Your task to perform on an android device: Search for pizza restaurants on Maps Image 0: 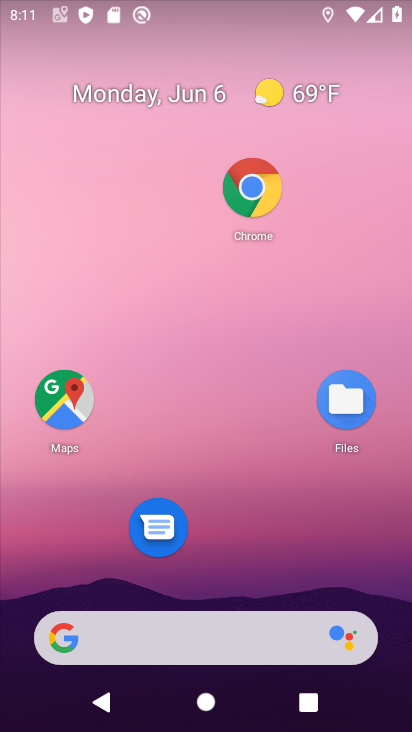
Step 0: drag from (230, 562) to (213, 96)
Your task to perform on an android device: Search for pizza restaurants on Maps Image 1: 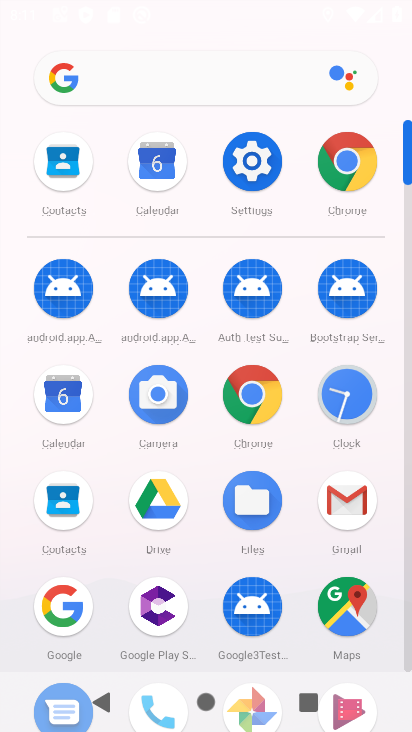
Step 1: drag from (226, 448) to (228, 141)
Your task to perform on an android device: Search for pizza restaurants on Maps Image 2: 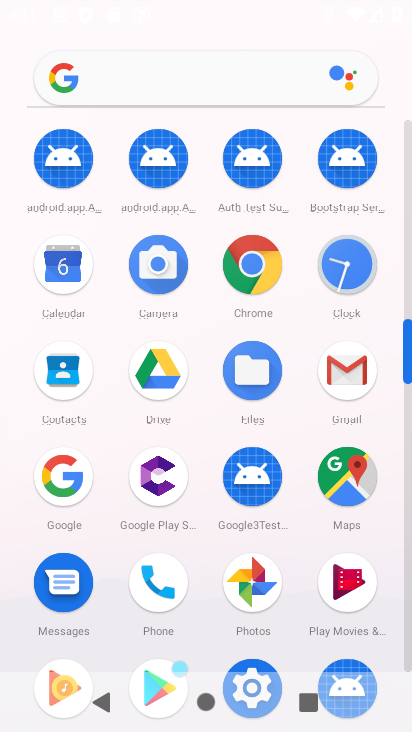
Step 2: click (62, 470)
Your task to perform on an android device: Search for pizza restaurants on Maps Image 3: 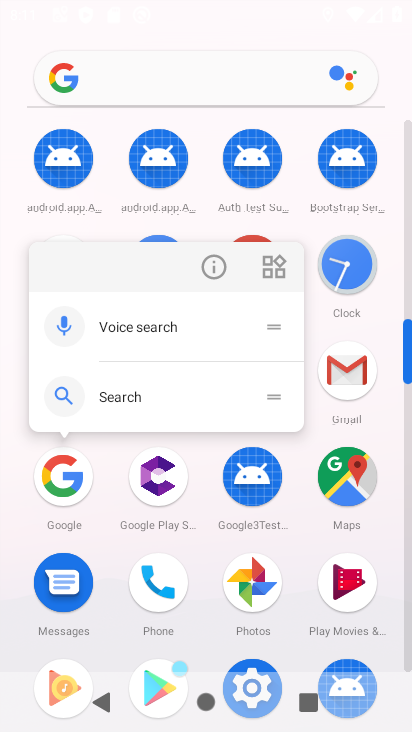
Step 3: click (78, 490)
Your task to perform on an android device: Search for pizza restaurants on Maps Image 4: 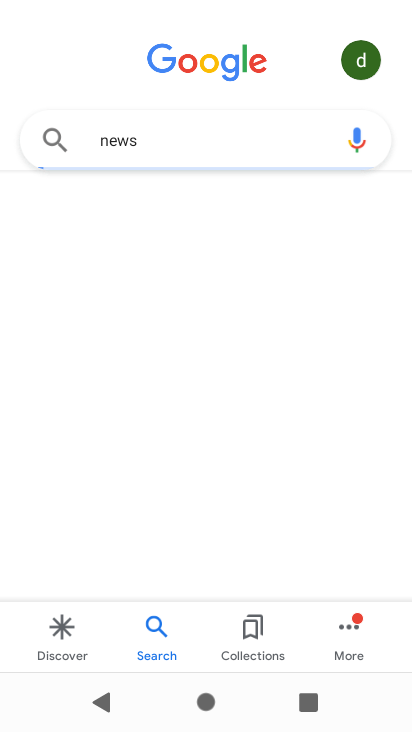
Step 4: click (67, 473)
Your task to perform on an android device: Search for pizza restaurants on Maps Image 5: 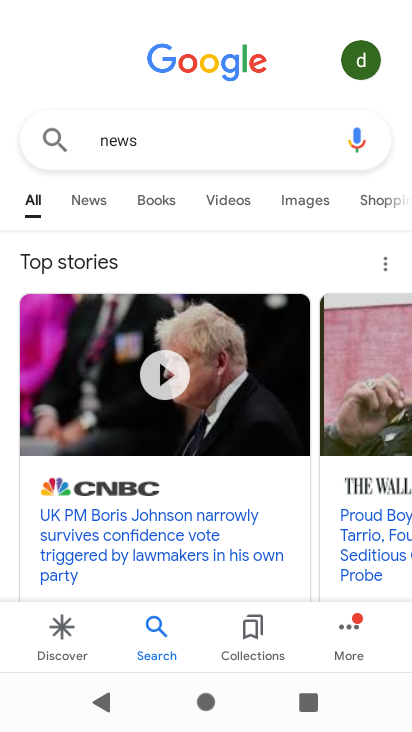
Step 5: click (173, 128)
Your task to perform on an android device: Search for pizza restaurants on Maps Image 6: 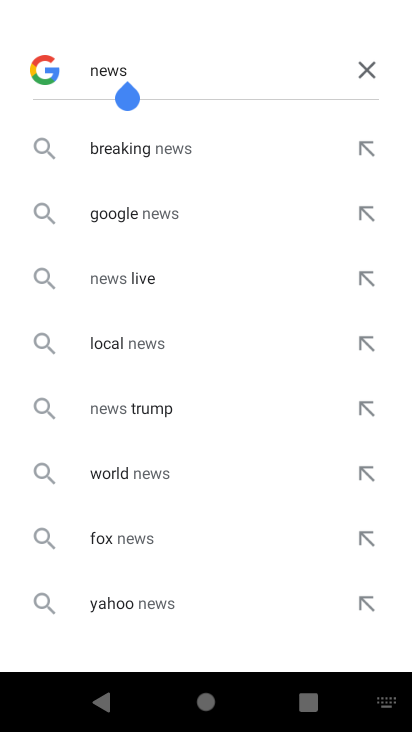
Step 6: click (350, 69)
Your task to perform on an android device: Search for pizza restaurants on Maps Image 7: 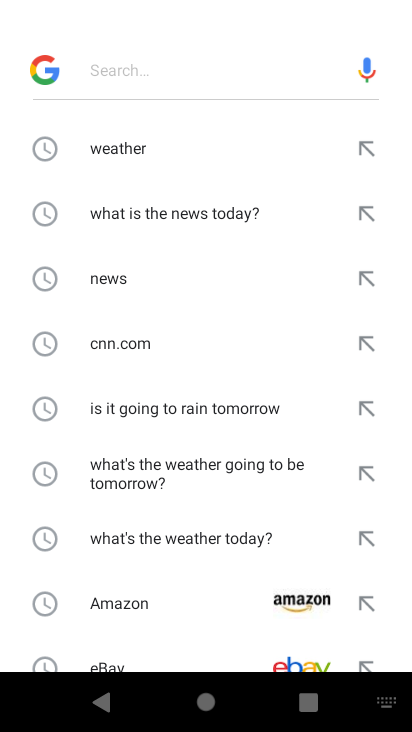
Step 7: type "pizza restaurent"
Your task to perform on an android device: Search for pizza restaurants on Maps Image 8: 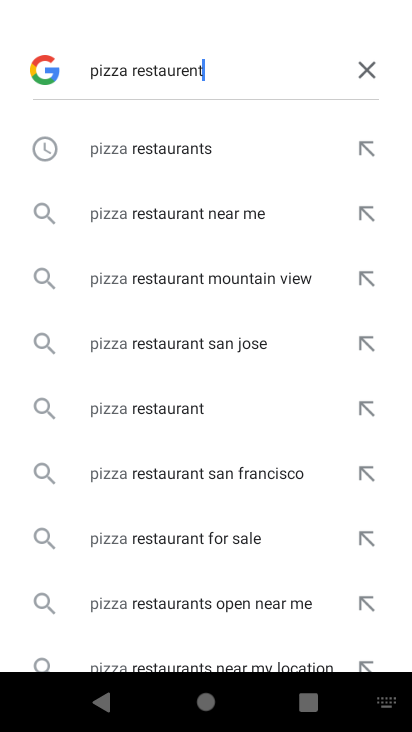
Step 8: click (133, 162)
Your task to perform on an android device: Search for pizza restaurants on Maps Image 9: 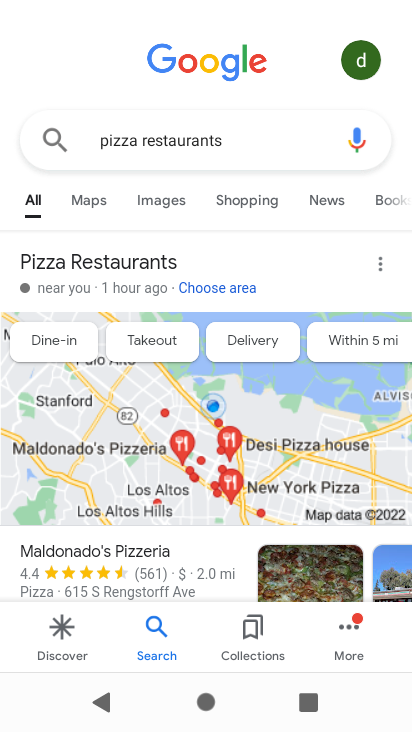
Step 9: task complete